Your task to perform on an android device: Open ESPN.com Image 0: 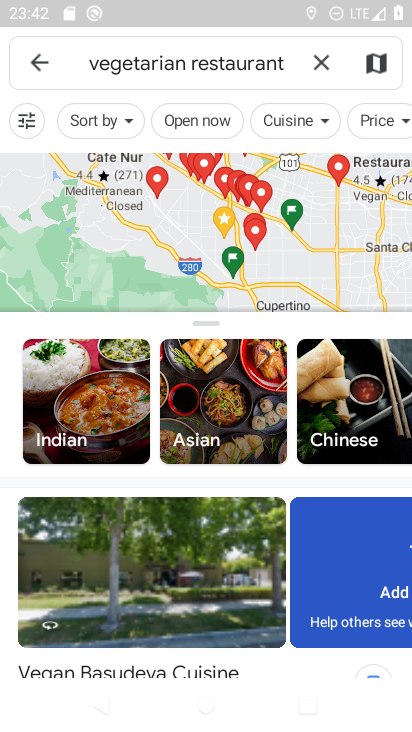
Step 0: press home button
Your task to perform on an android device: Open ESPN.com Image 1: 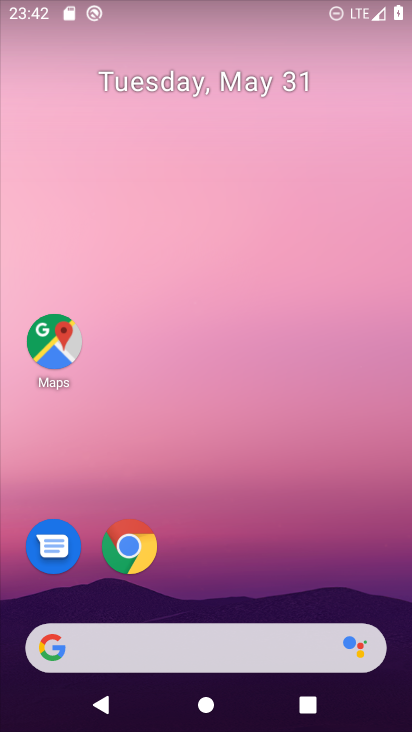
Step 1: click (130, 548)
Your task to perform on an android device: Open ESPN.com Image 2: 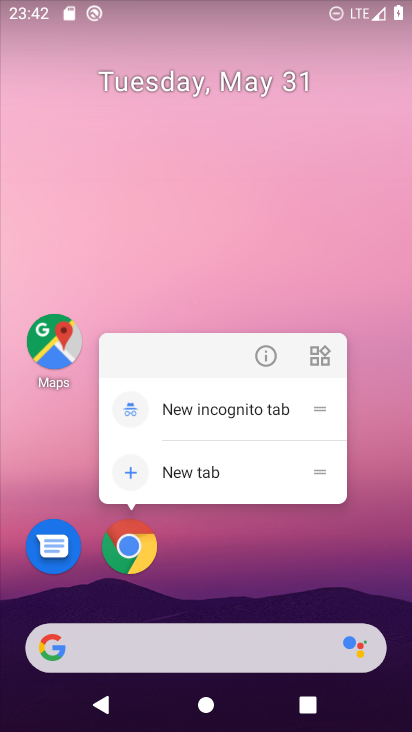
Step 2: click (141, 245)
Your task to perform on an android device: Open ESPN.com Image 3: 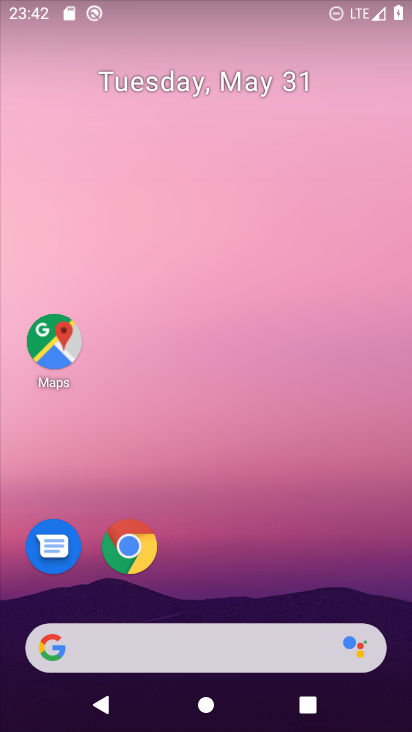
Step 3: click (121, 544)
Your task to perform on an android device: Open ESPN.com Image 4: 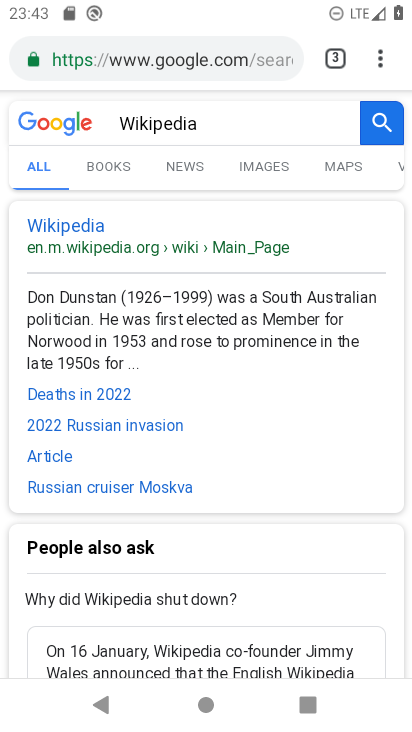
Step 4: click (283, 64)
Your task to perform on an android device: Open ESPN.com Image 5: 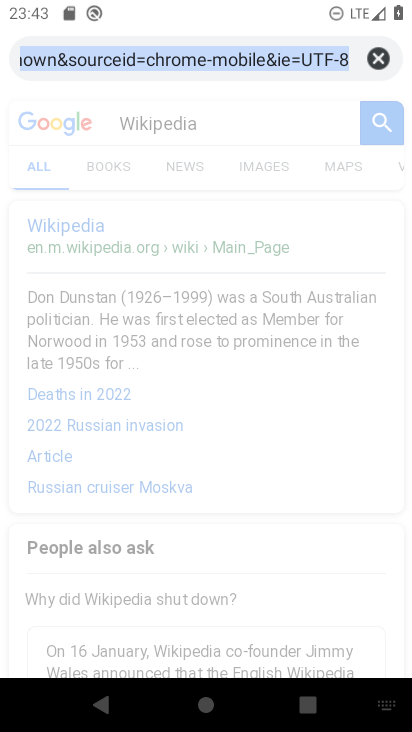
Step 5: click (372, 54)
Your task to perform on an android device: Open ESPN.com Image 6: 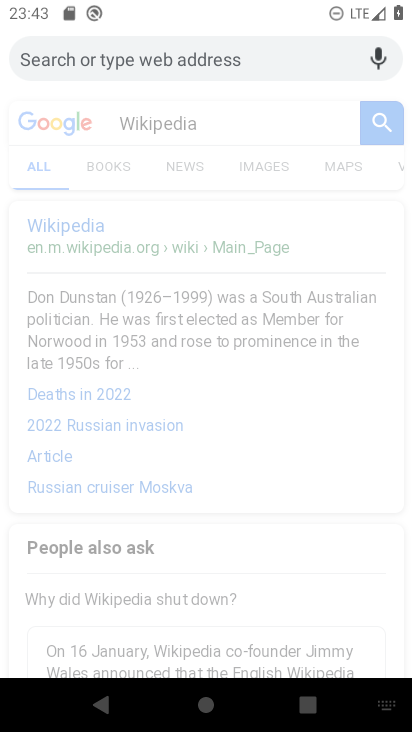
Step 6: type "ESPN.com"
Your task to perform on an android device: Open ESPN.com Image 7: 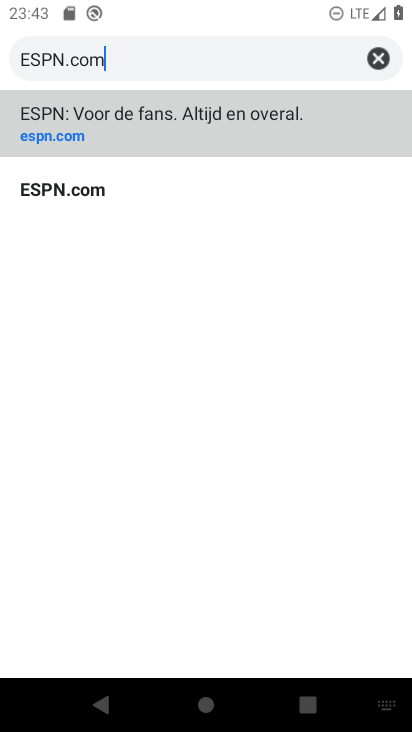
Step 7: click (63, 197)
Your task to perform on an android device: Open ESPN.com Image 8: 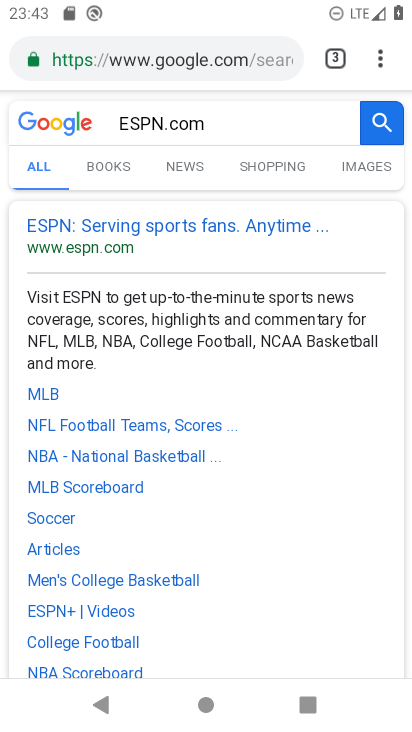
Step 8: task complete